Your task to perform on an android device: Open Reddit.com Image 0: 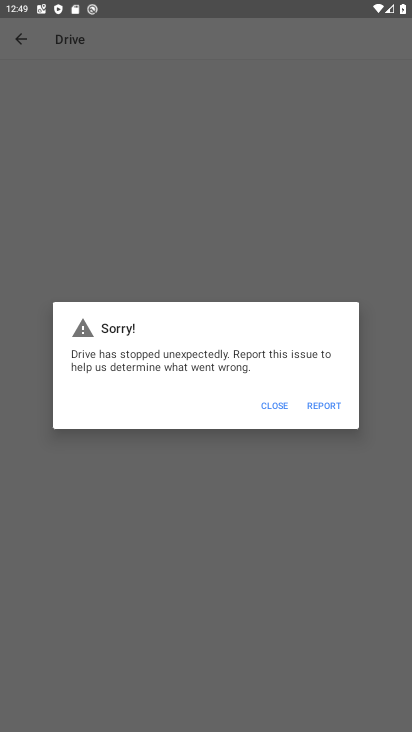
Step 0: press home button
Your task to perform on an android device: Open Reddit.com Image 1: 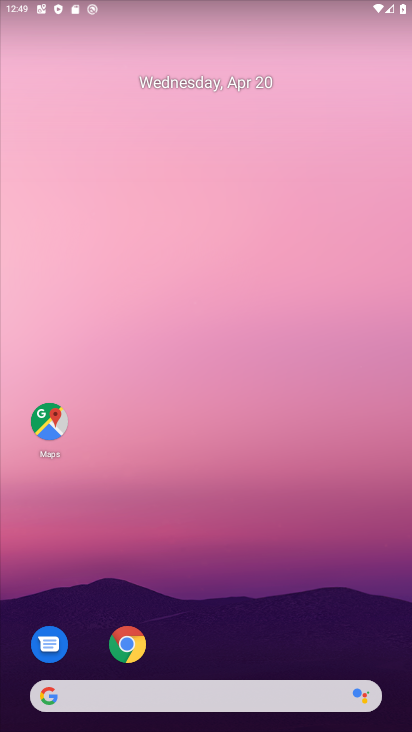
Step 1: click (226, 699)
Your task to perform on an android device: Open Reddit.com Image 2: 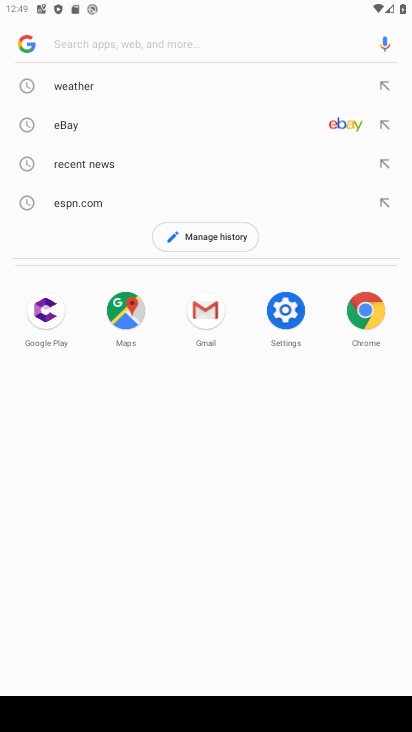
Step 2: type "Reddit.com"
Your task to perform on an android device: Open Reddit.com Image 3: 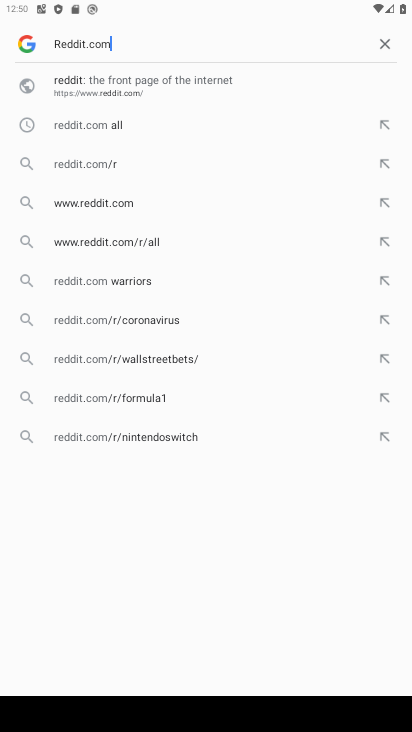
Step 3: click (114, 209)
Your task to perform on an android device: Open Reddit.com Image 4: 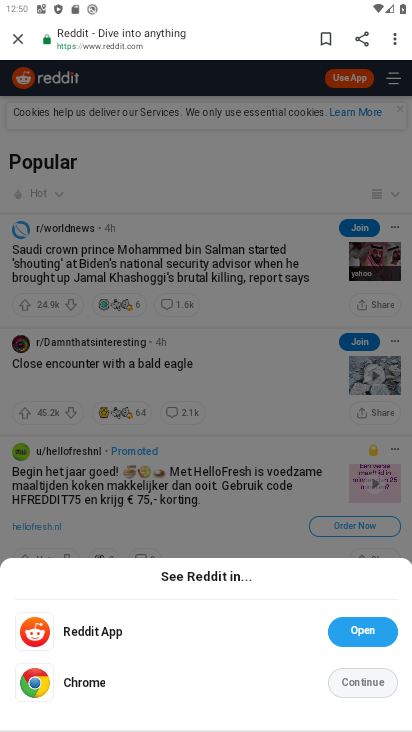
Step 4: click (348, 685)
Your task to perform on an android device: Open Reddit.com Image 5: 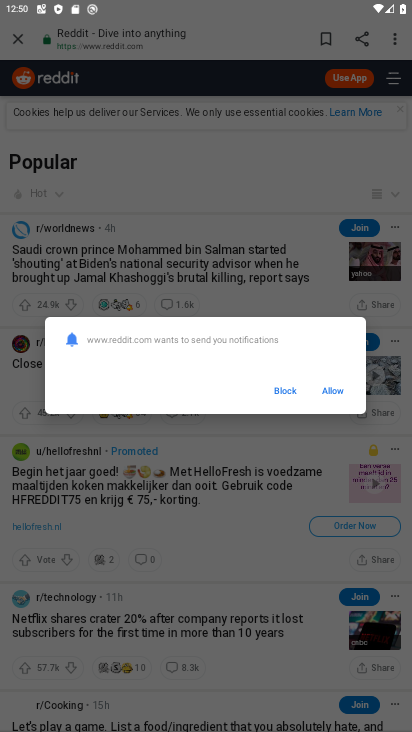
Step 5: click (334, 390)
Your task to perform on an android device: Open Reddit.com Image 6: 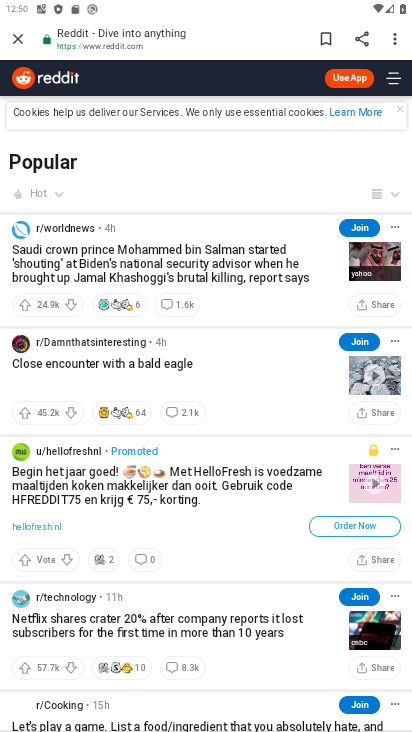
Step 6: task complete